Your task to perform on an android device: uninstall "HBO Max: Stream TV & Movies" Image 0: 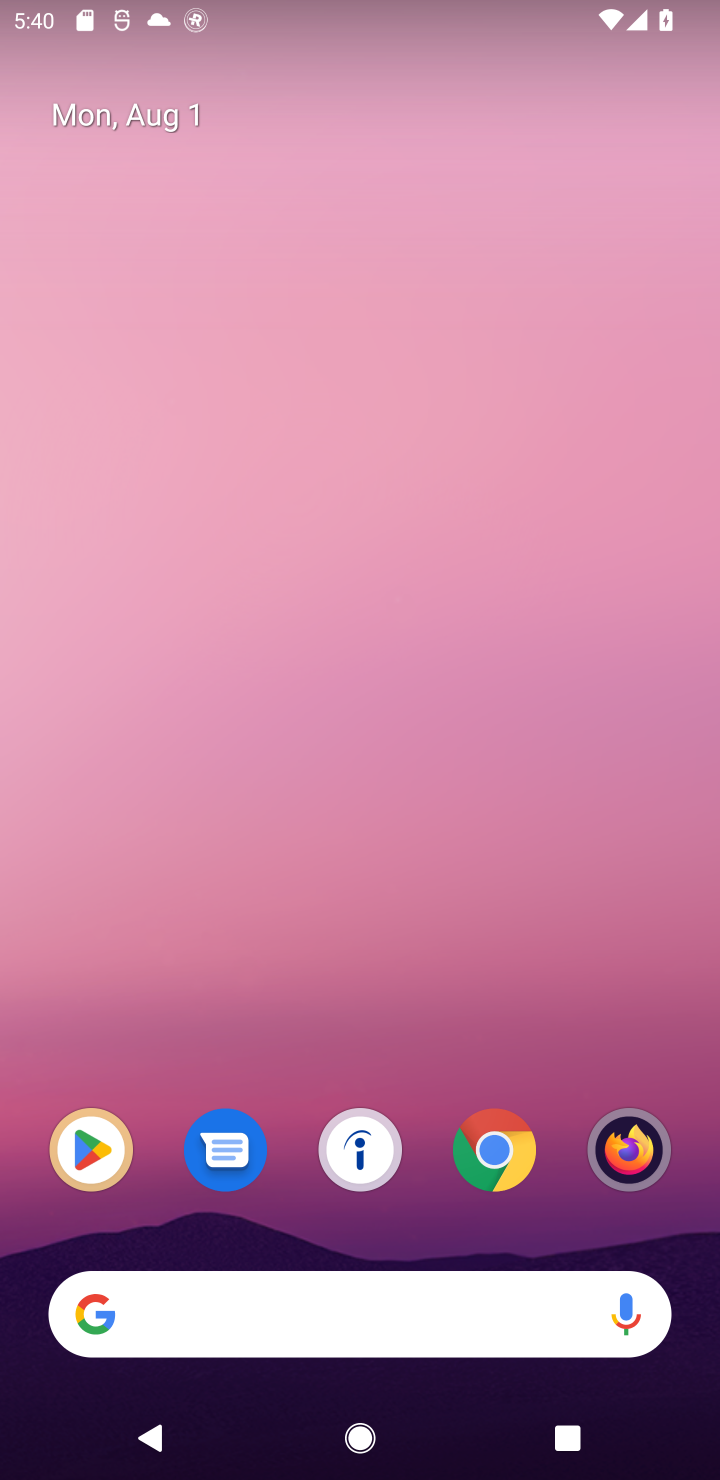
Step 0: press home button
Your task to perform on an android device: uninstall "HBO Max: Stream TV & Movies" Image 1: 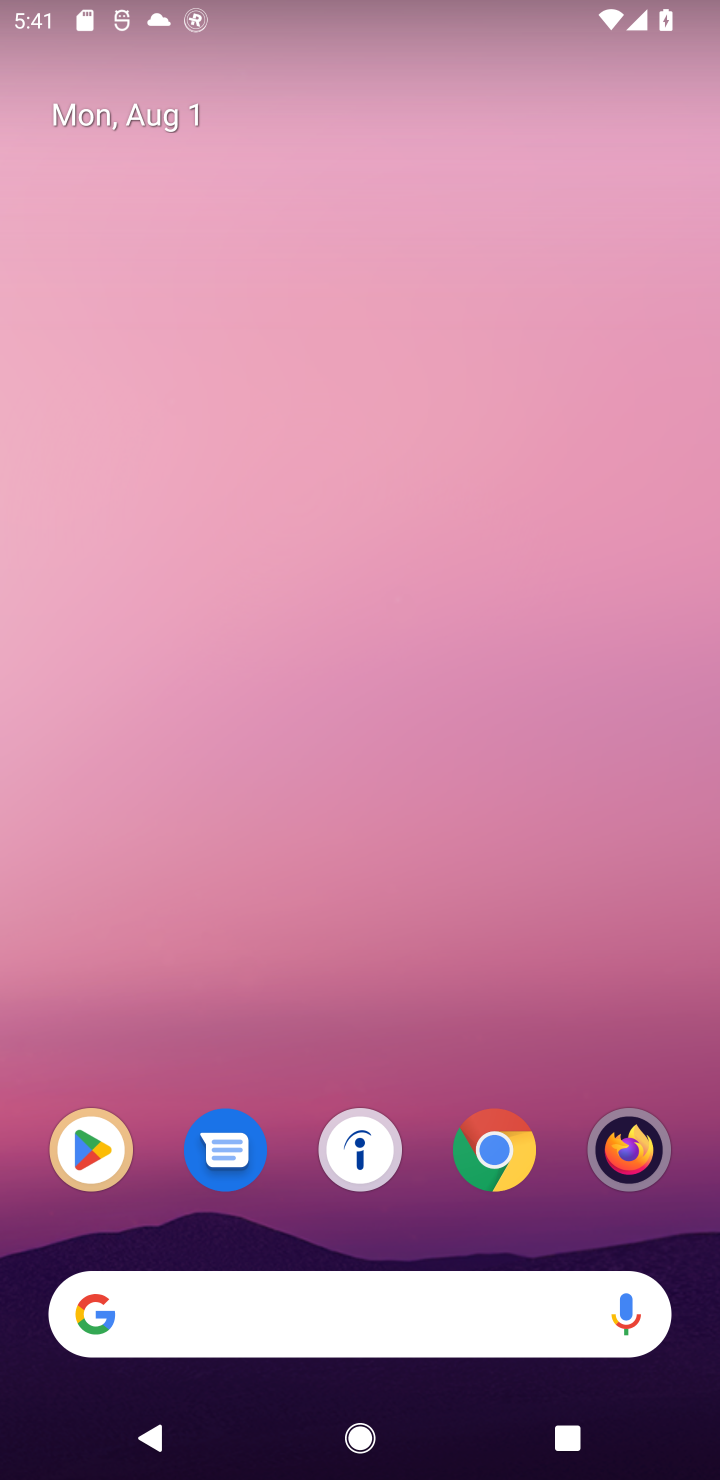
Step 1: drag from (320, 1236) to (368, 66)
Your task to perform on an android device: uninstall "HBO Max: Stream TV & Movies" Image 2: 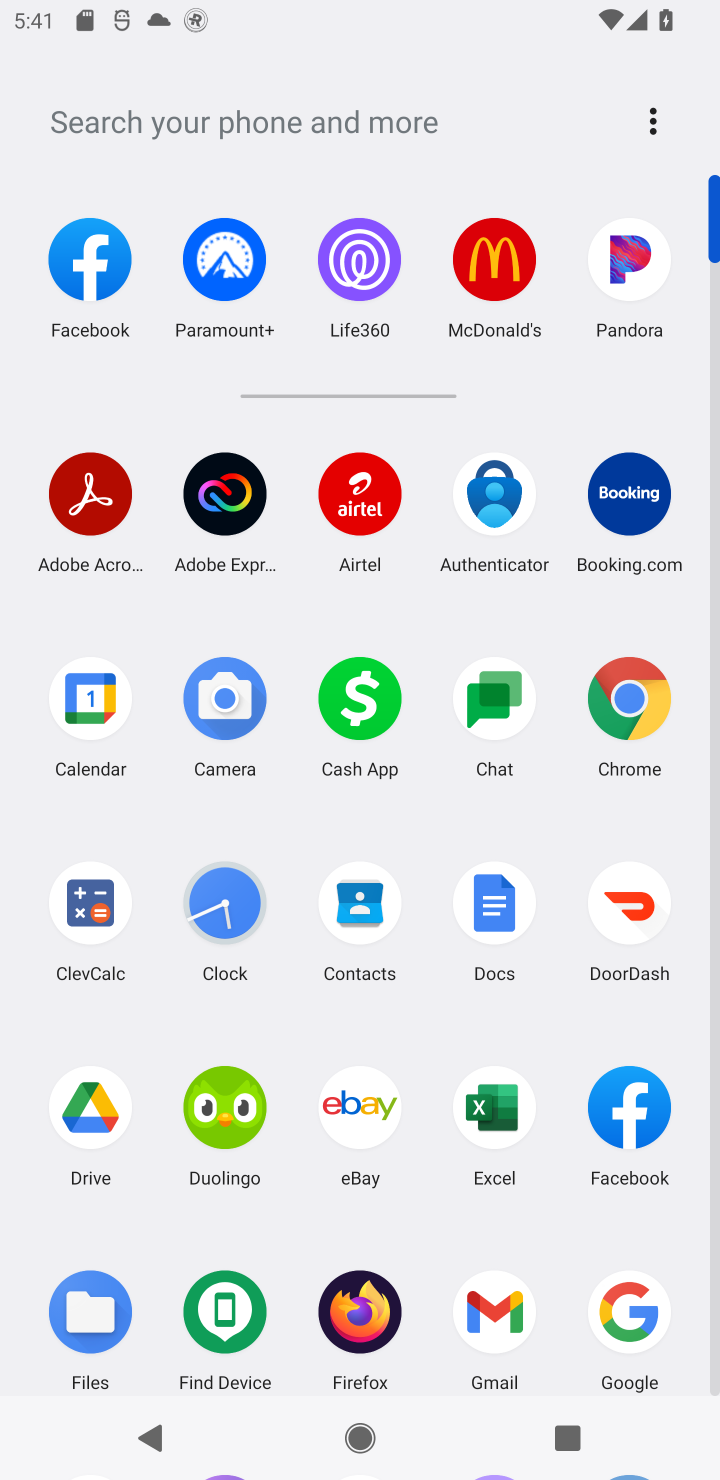
Step 2: click (717, 1387)
Your task to perform on an android device: uninstall "HBO Max: Stream TV & Movies" Image 3: 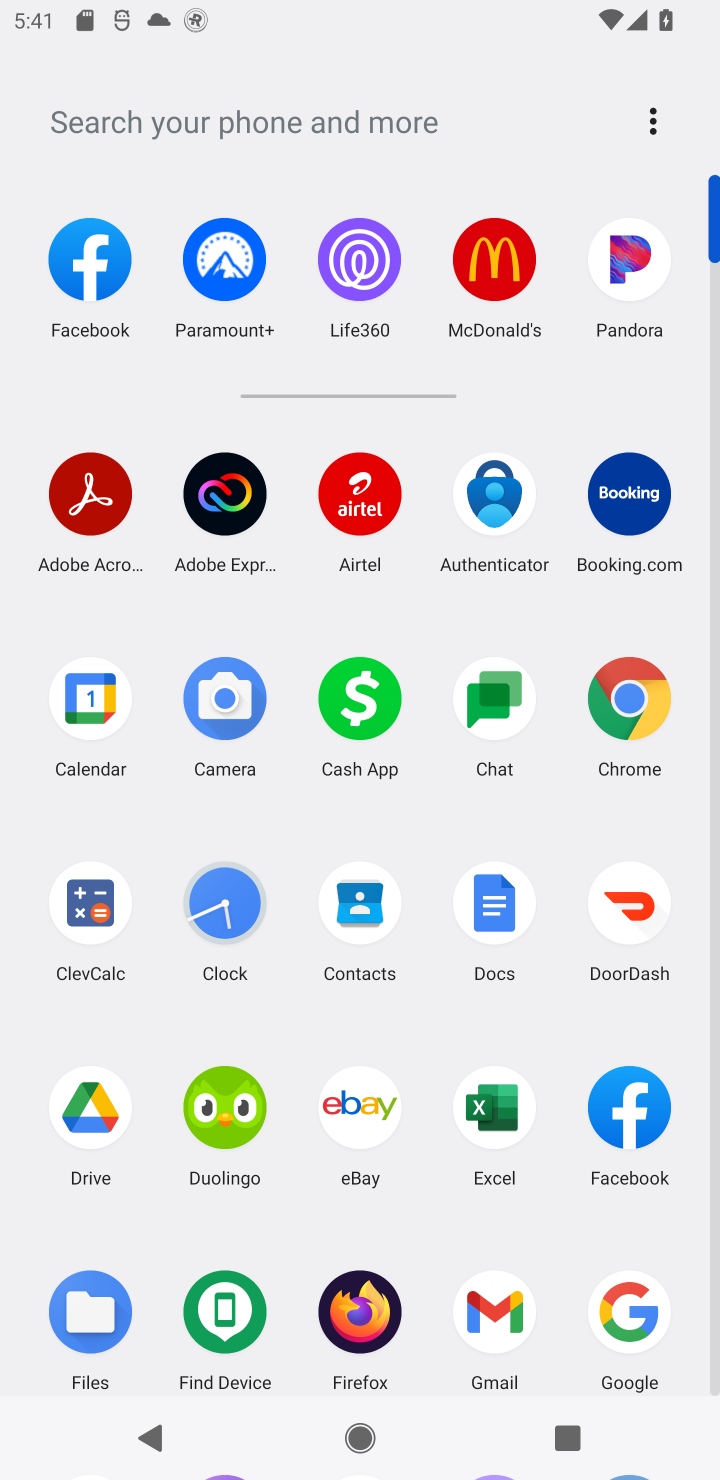
Step 3: click (717, 1387)
Your task to perform on an android device: uninstall "HBO Max: Stream TV & Movies" Image 4: 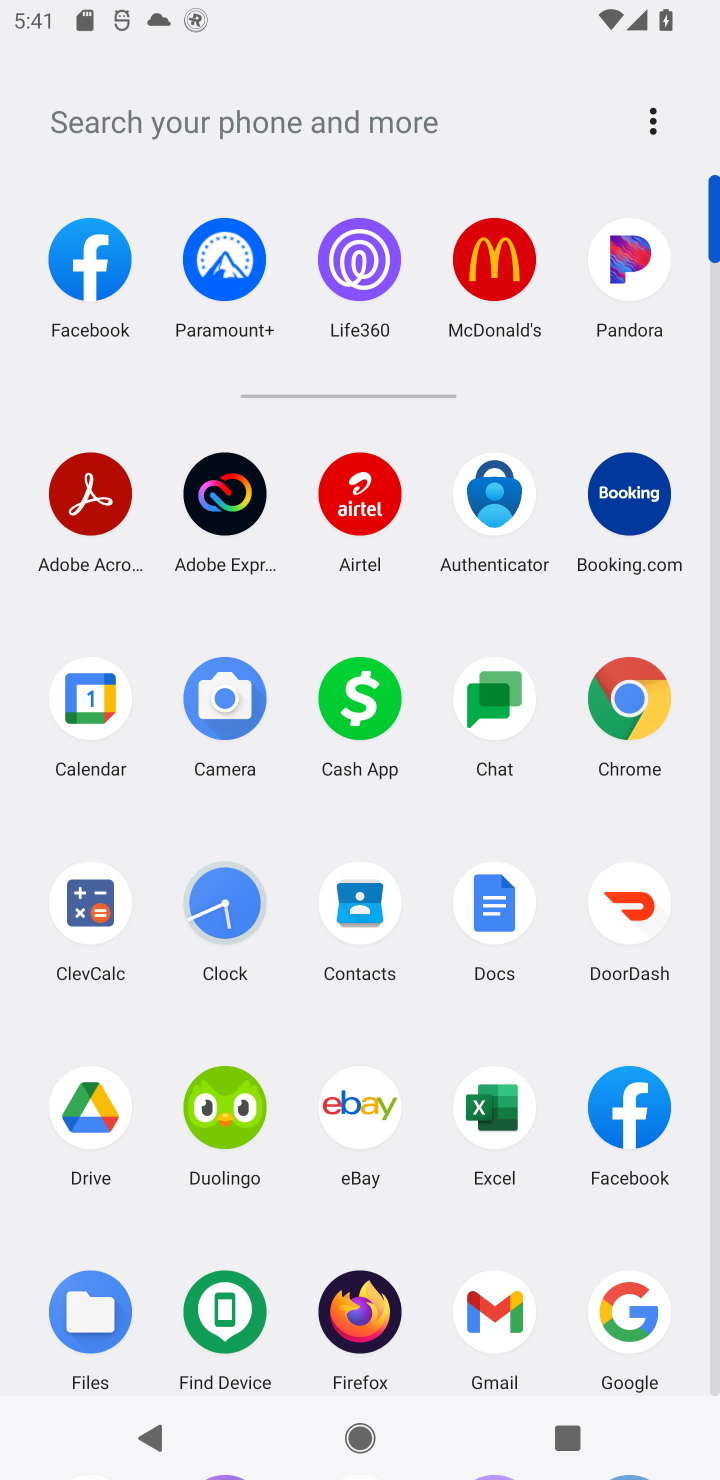
Step 4: click (717, 1387)
Your task to perform on an android device: uninstall "HBO Max: Stream TV & Movies" Image 5: 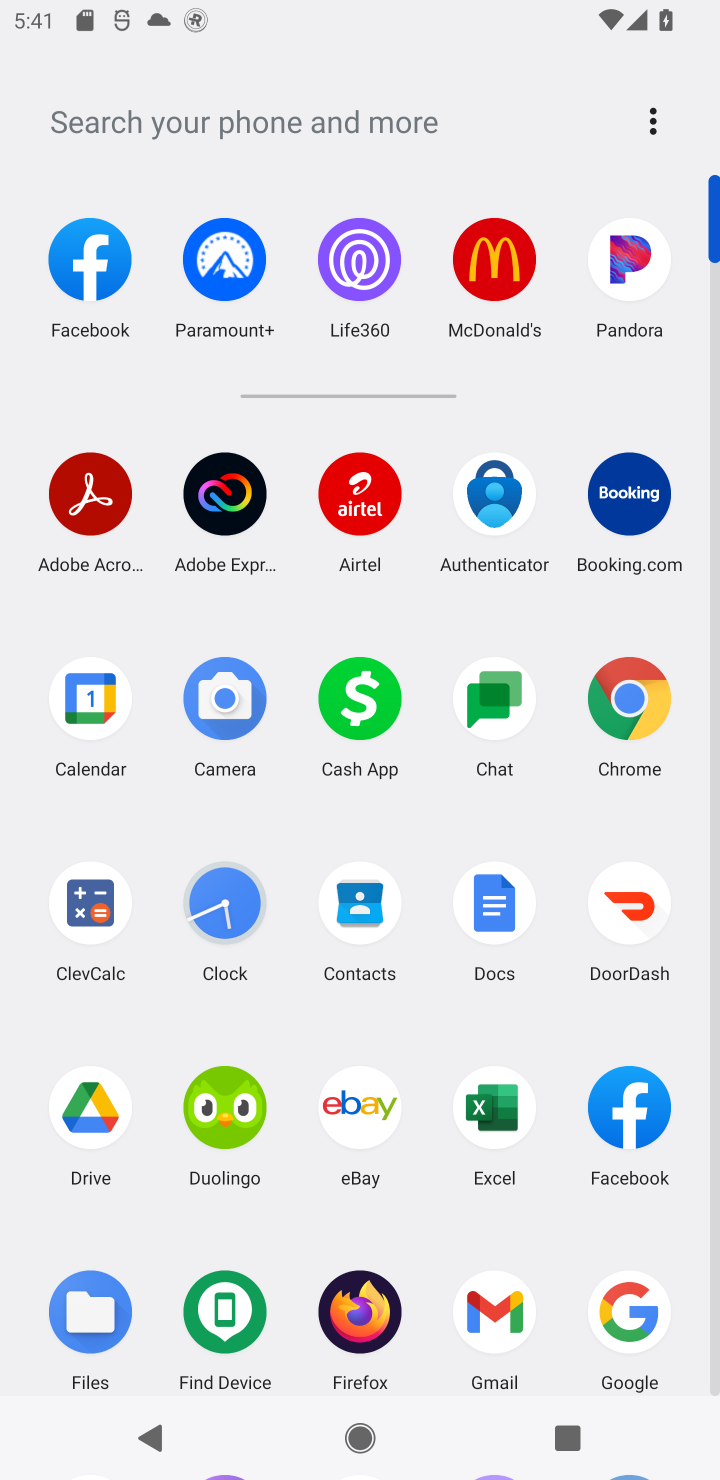
Step 5: task complete